Your task to perform on an android device: set the stopwatch Image 0: 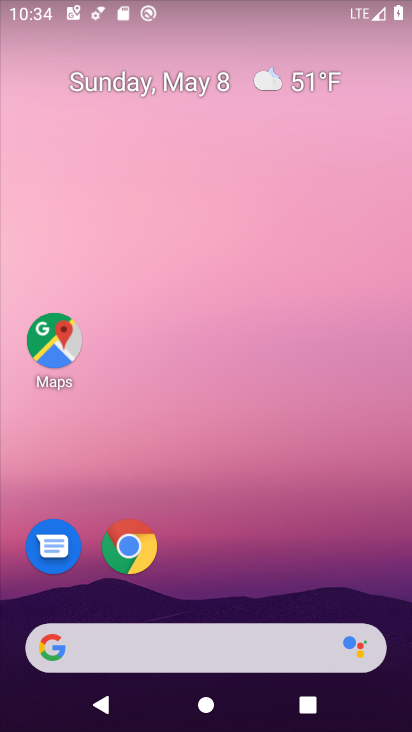
Step 0: drag from (398, 633) to (328, 99)
Your task to perform on an android device: set the stopwatch Image 1: 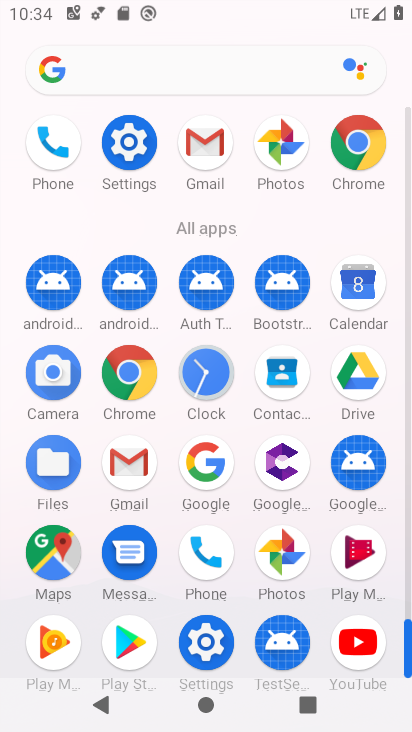
Step 1: click (203, 370)
Your task to perform on an android device: set the stopwatch Image 2: 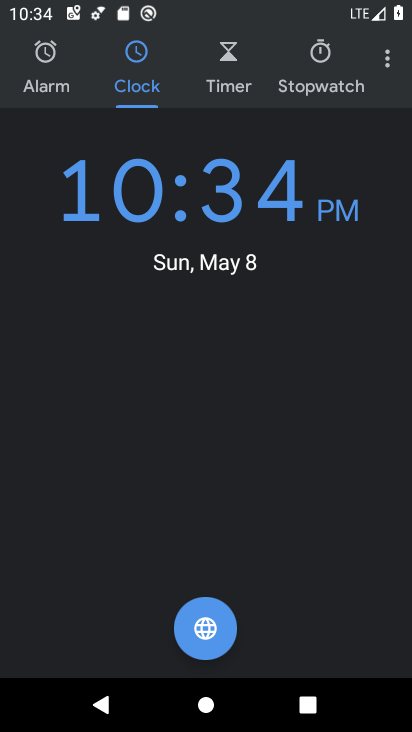
Step 2: click (321, 51)
Your task to perform on an android device: set the stopwatch Image 3: 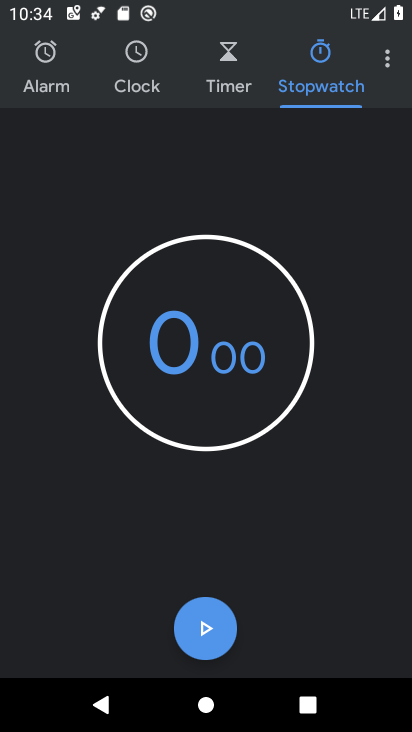
Step 3: task complete